Your task to perform on an android device: turn on notifications settings in the gmail app Image 0: 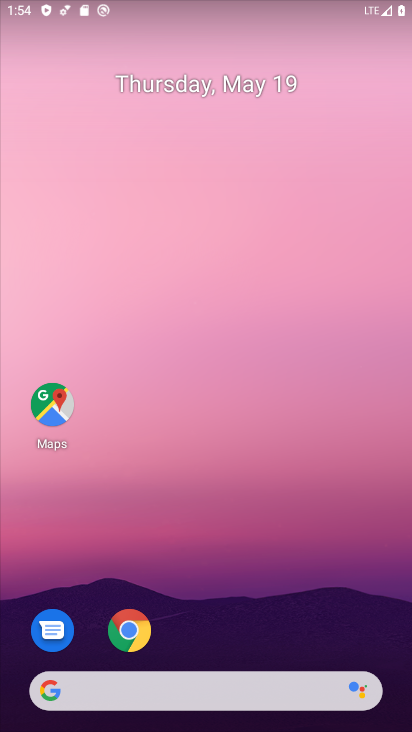
Step 0: drag from (229, 465) to (193, 24)
Your task to perform on an android device: turn on notifications settings in the gmail app Image 1: 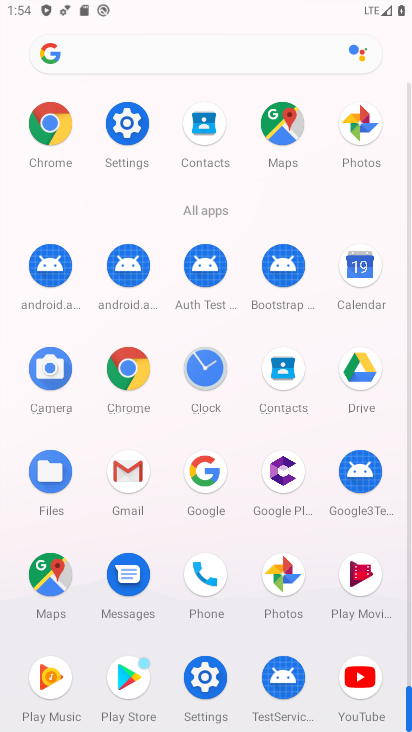
Step 1: click (126, 467)
Your task to perform on an android device: turn on notifications settings in the gmail app Image 2: 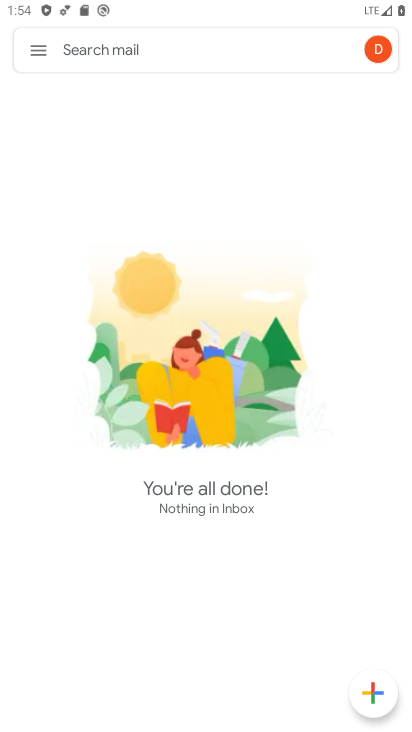
Step 2: click (40, 41)
Your task to perform on an android device: turn on notifications settings in the gmail app Image 3: 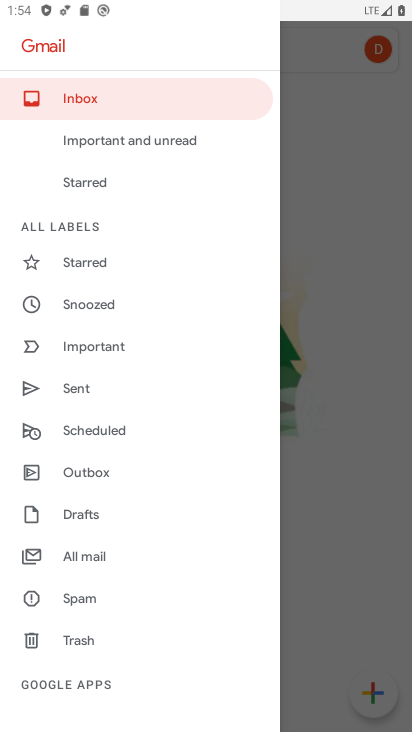
Step 3: drag from (107, 639) to (155, 119)
Your task to perform on an android device: turn on notifications settings in the gmail app Image 4: 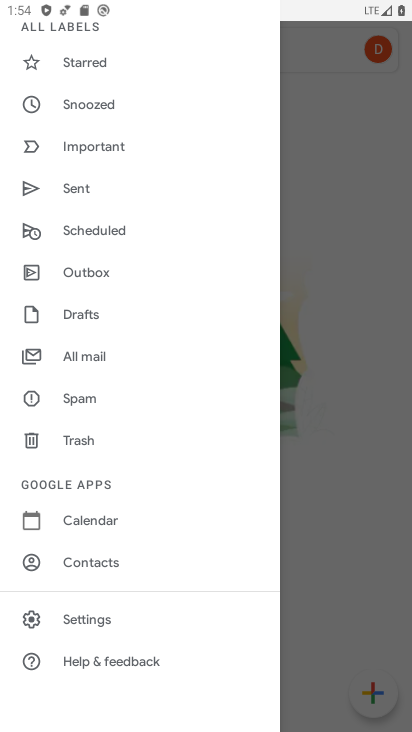
Step 4: click (79, 620)
Your task to perform on an android device: turn on notifications settings in the gmail app Image 5: 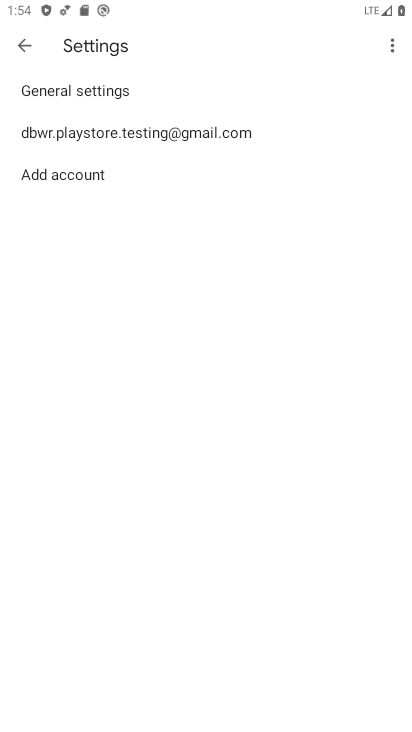
Step 5: click (141, 134)
Your task to perform on an android device: turn on notifications settings in the gmail app Image 6: 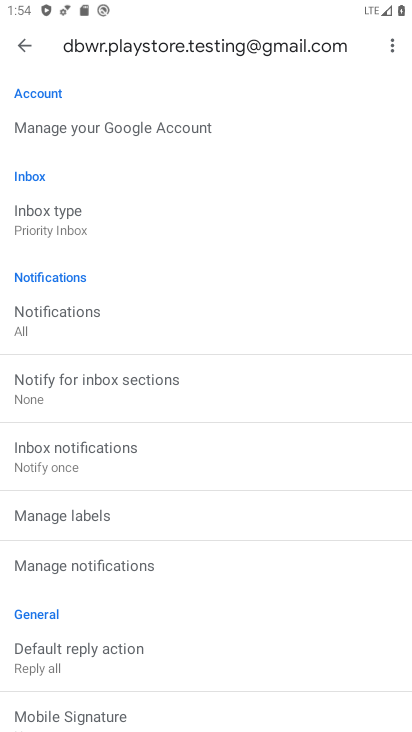
Step 6: click (95, 563)
Your task to perform on an android device: turn on notifications settings in the gmail app Image 7: 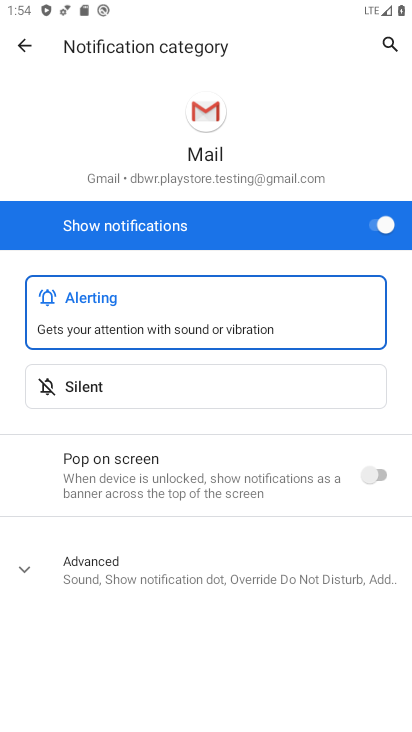
Step 7: click (34, 567)
Your task to perform on an android device: turn on notifications settings in the gmail app Image 8: 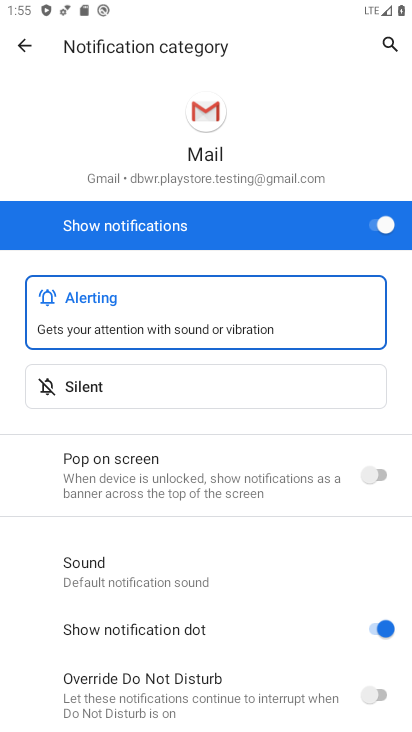
Step 8: task complete